Your task to perform on an android device: empty trash in the gmail app Image 0: 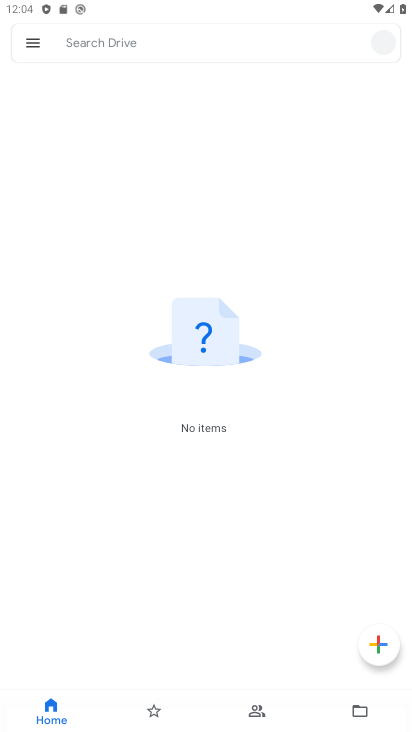
Step 0: press home button
Your task to perform on an android device: empty trash in the gmail app Image 1: 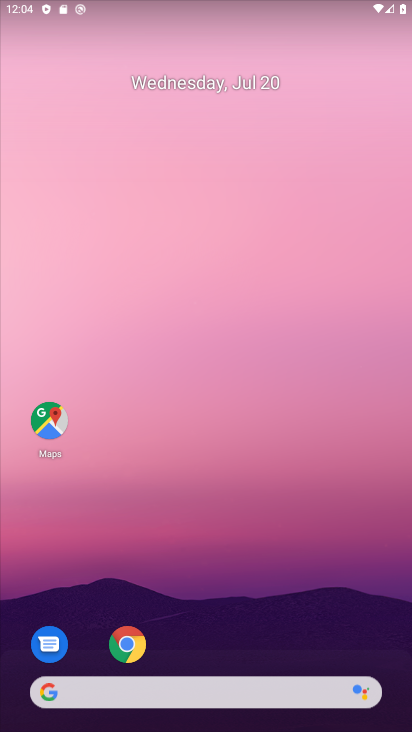
Step 1: drag from (231, 608) to (231, 403)
Your task to perform on an android device: empty trash in the gmail app Image 2: 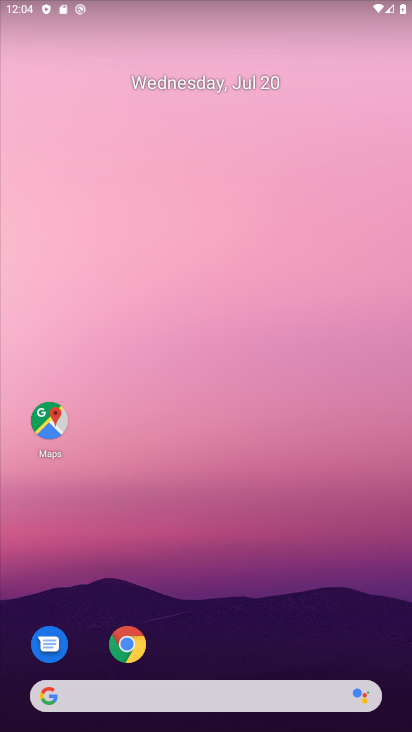
Step 2: drag from (240, 551) to (203, 5)
Your task to perform on an android device: empty trash in the gmail app Image 3: 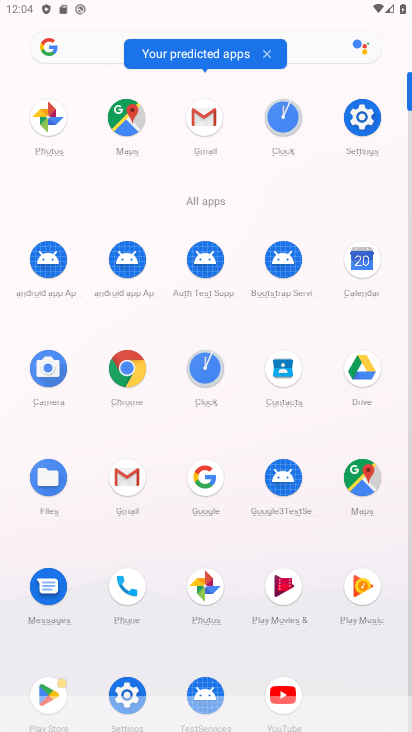
Step 3: click (204, 152)
Your task to perform on an android device: empty trash in the gmail app Image 4: 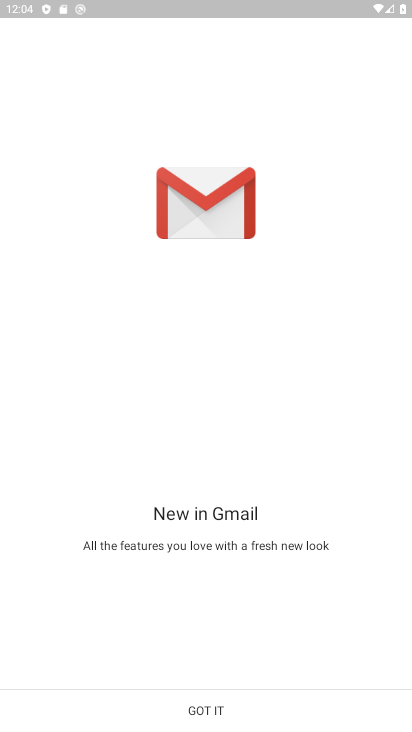
Step 4: click (141, 704)
Your task to perform on an android device: empty trash in the gmail app Image 5: 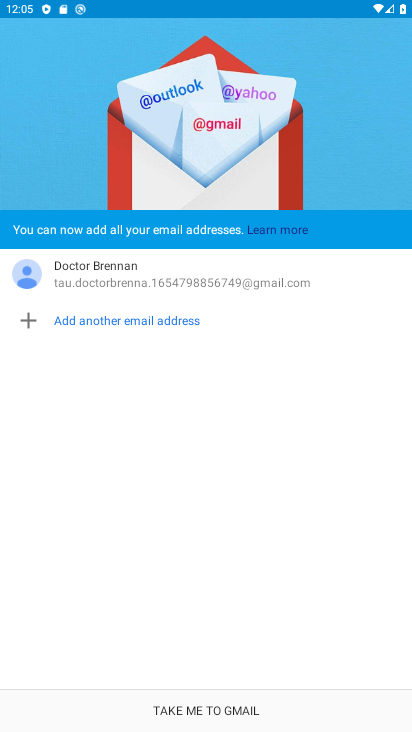
Step 5: click (249, 710)
Your task to perform on an android device: empty trash in the gmail app Image 6: 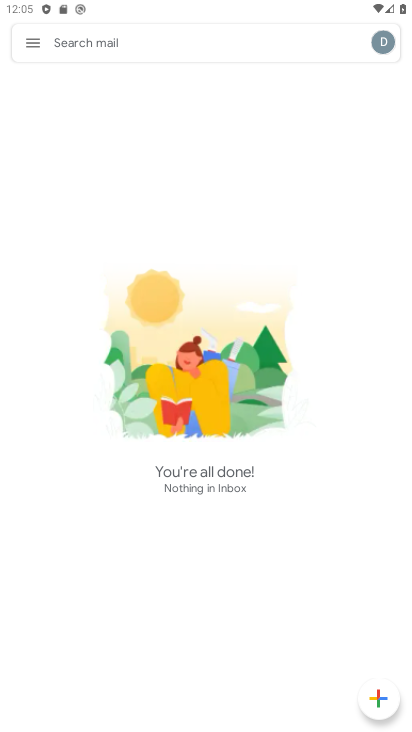
Step 6: click (36, 49)
Your task to perform on an android device: empty trash in the gmail app Image 7: 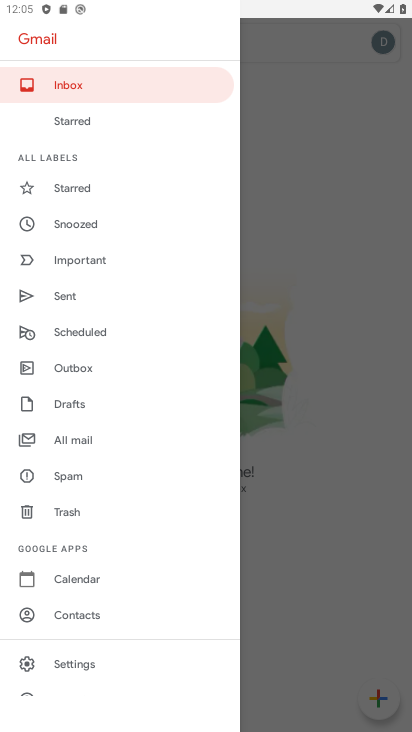
Step 7: click (121, 522)
Your task to perform on an android device: empty trash in the gmail app Image 8: 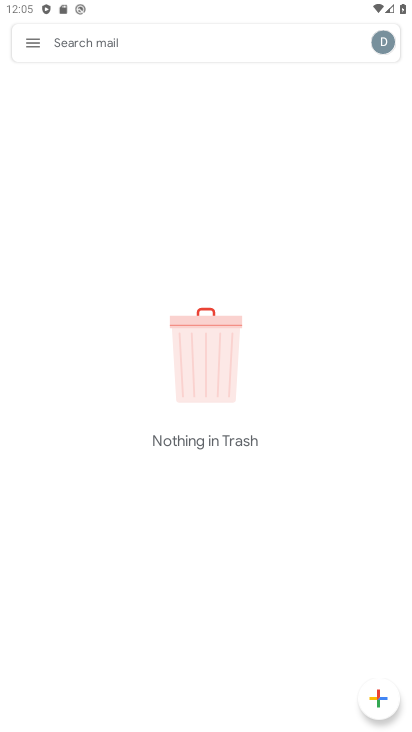
Step 8: task complete